Your task to perform on an android device: Go to location settings Image 0: 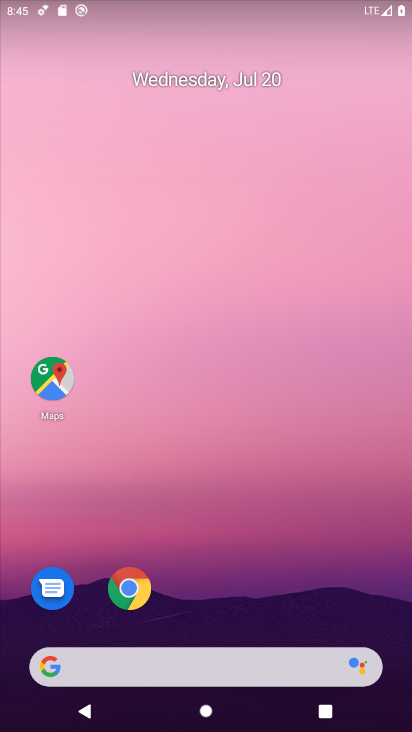
Step 0: press home button
Your task to perform on an android device: Go to location settings Image 1: 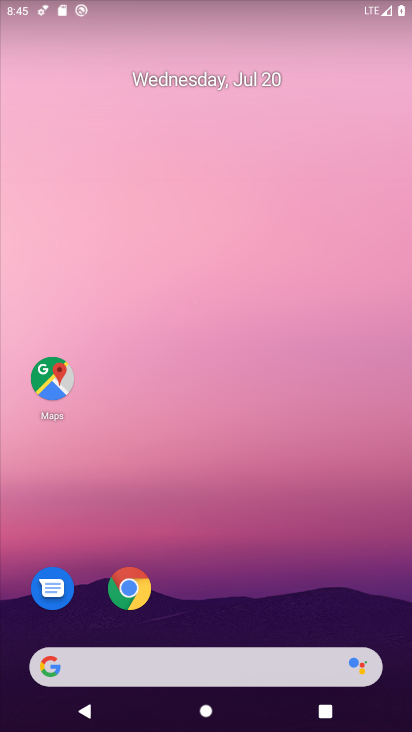
Step 1: drag from (203, 629) to (244, 47)
Your task to perform on an android device: Go to location settings Image 2: 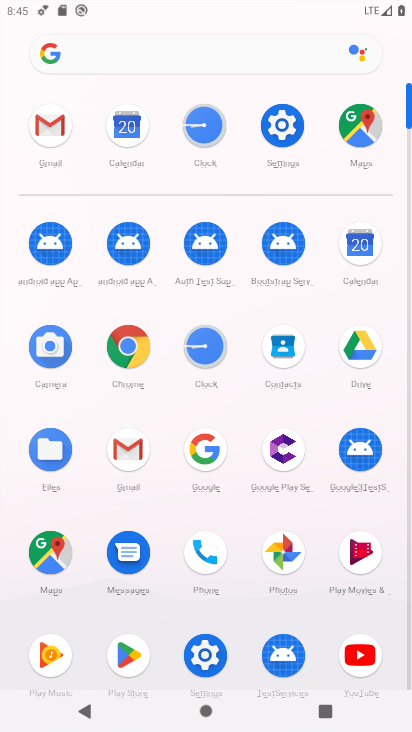
Step 2: click (282, 113)
Your task to perform on an android device: Go to location settings Image 3: 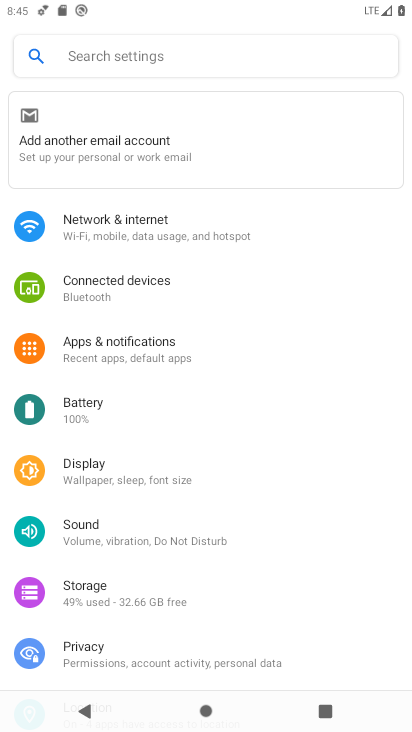
Step 3: drag from (184, 637) to (213, 176)
Your task to perform on an android device: Go to location settings Image 4: 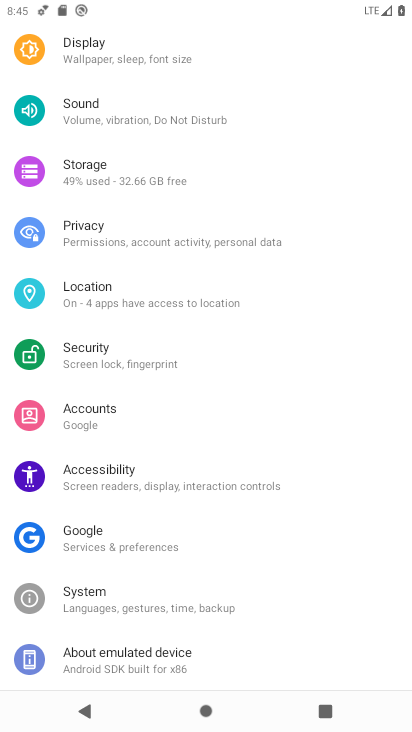
Step 4: click (125, 286)
Your task to perform on an android device: Go to location settings Image 5: 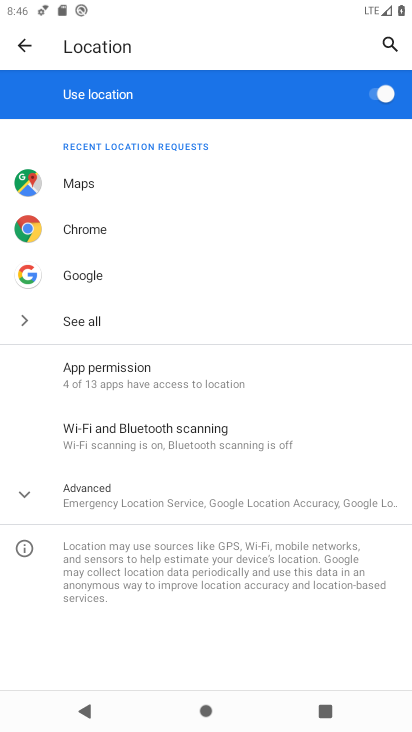
Step 5: click (36, 495)
Your task to perform on an android device: Go to location settings Image 6: 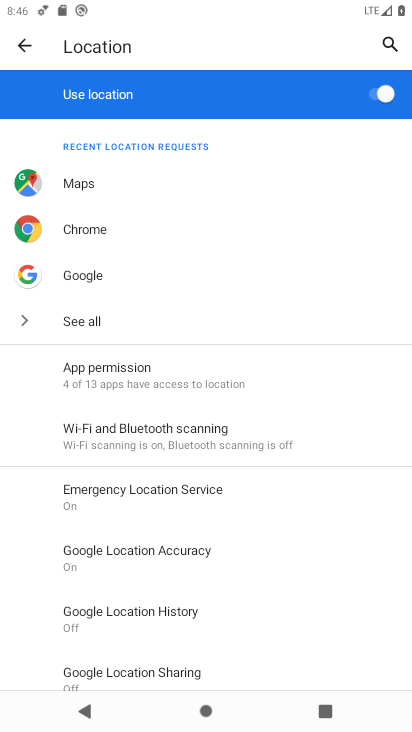
Step 6: task complete